Your task to perform on an android device: Search for vegetarian restaurants on Maps Image 0: 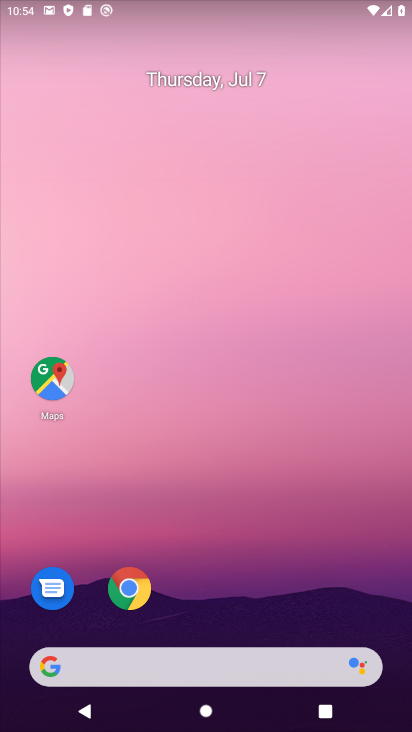
Step 0: drag from (164, 658) to (295, 14)
Your task to perform on an android device: Search for vegetarian restaurants on Maps Image 1: 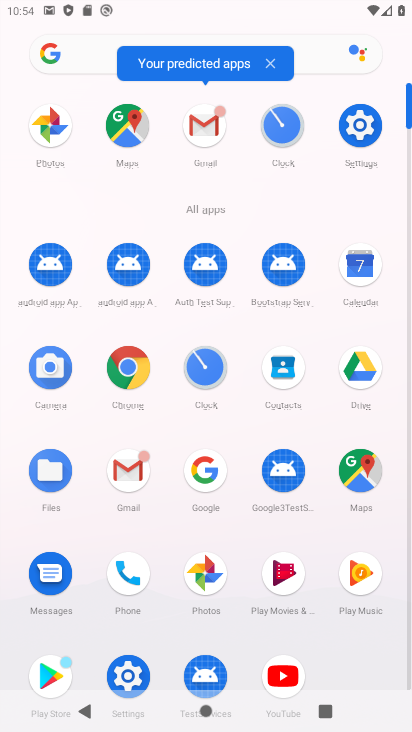
Step 1: click (359, 473)
Your task to perform on an android device: Search for vegetarian restaurants on Maps Image 2: 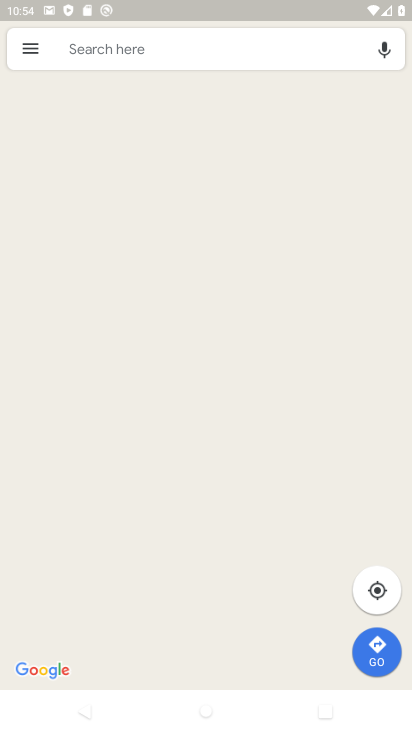
Step 2: click (172, 37)
Your task to perform on an android device: Search for vegetarian restaurants on Maps Image 3: 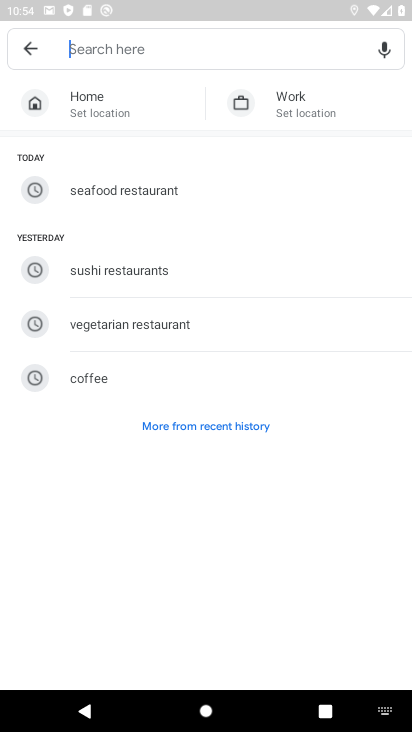
Step 3: type "vegetarian restaurants"
Your task to perform on an android device: Search for vegetarian restaurants on Maps Image 4: 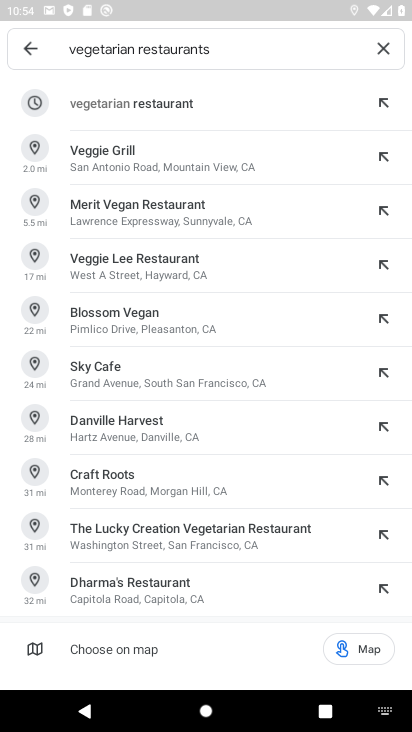
Step 4: click (237, 115)
Your task to perform on an android device: Search for vegetarian restaurants on Maps Image 5: 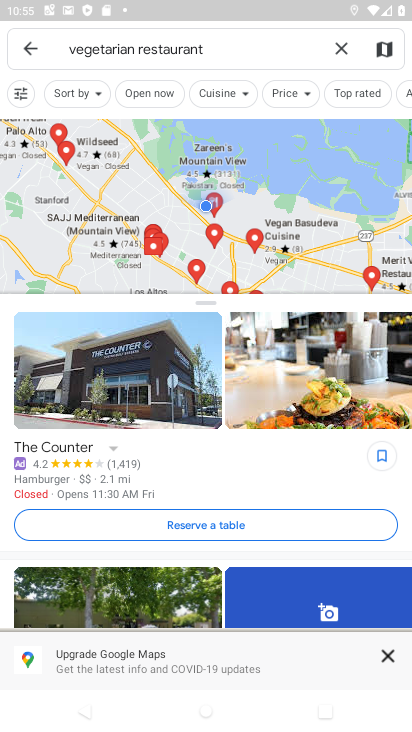
Step 5: task complete